Your task to perform on an android device: Open notification settings Image 0: 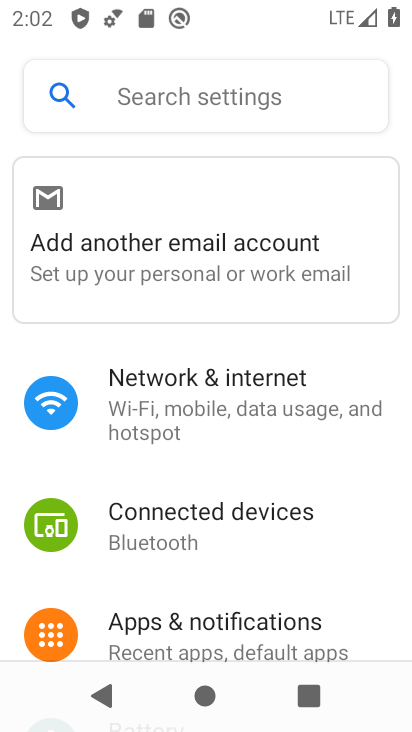
Step 0: click (228, 616)
Your task to perform on an android device: Open notification settings Image 1: 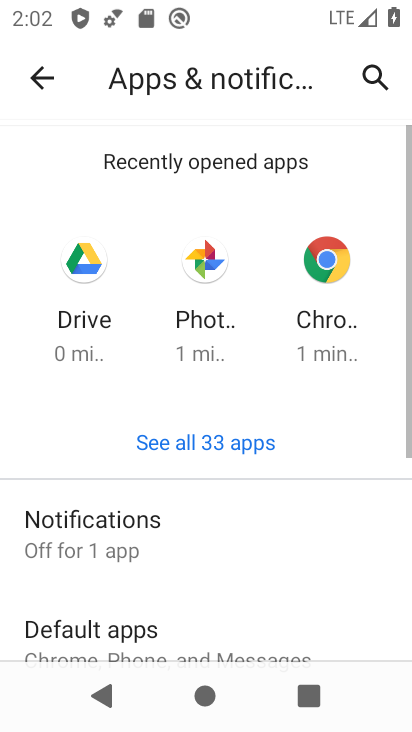
Step 1: click (153, 543)
Your task to perform on an android device: Open notification settings Image 2: 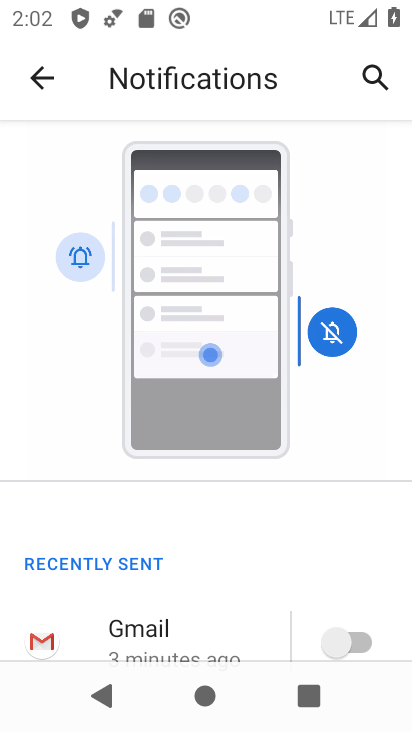
Step 2: drag from (192, 620) to (177, 93)
Your task to perform on an android device: Open notification settings Image 3: 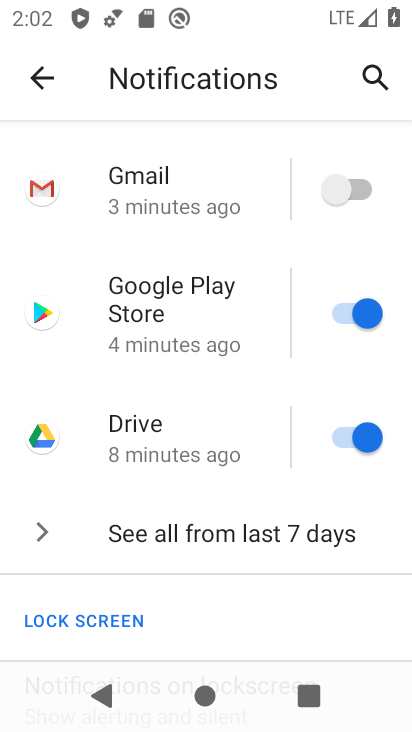
Step 3: drag from (182, 608) to (169, 127)
Your task to perform on an android device: Open notification settings Image 4: 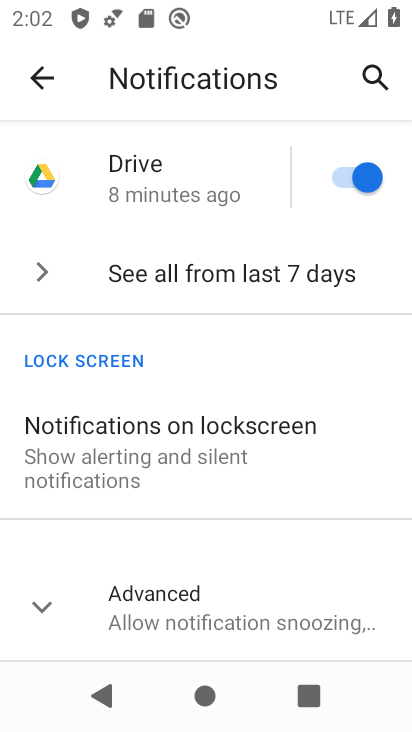
Step 4: click (43, 597)
Your task to perform on an android device: Open notification settings Image 5: 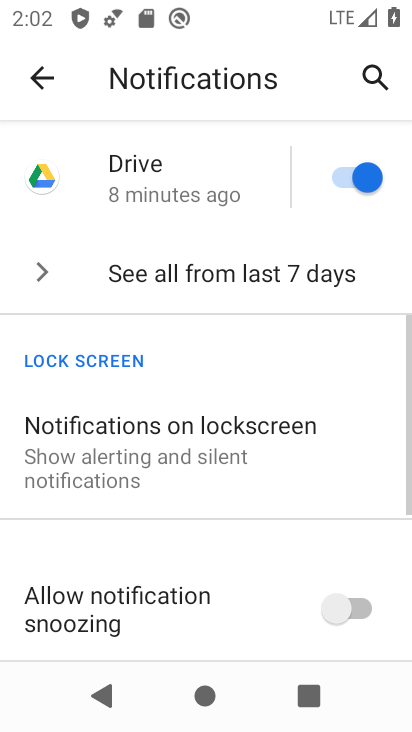
Step 5: task complete